Your task to perform on an android device: Open calendar and show me the third week of next month Image 0: 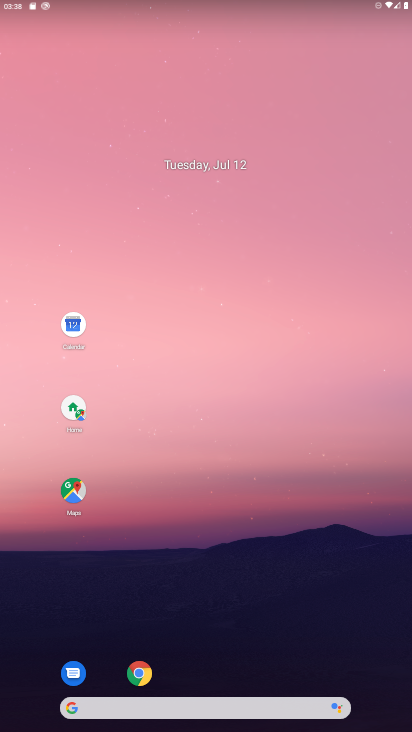
Step 0: drag from (256, 632) to (219, 346)
Your task to perform on an android device: Open calendar and show me the third week of next month Image 1: 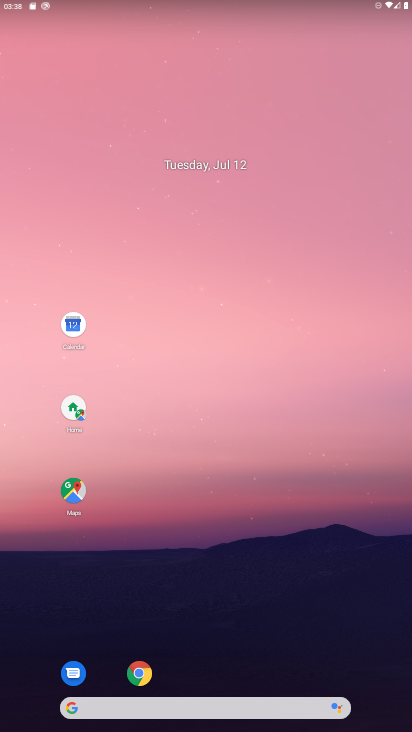
Step 1: drag from (282, 692) to (248, 205)
Your task to perform on an android device: Open calendar and show me the third week of next month Image 2: 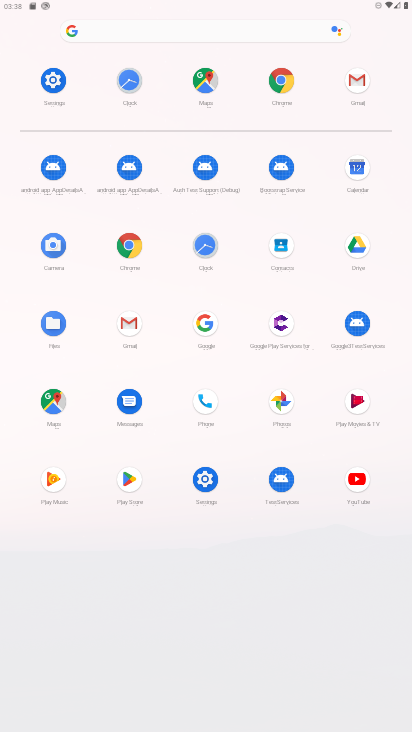
Step 2: click (357, 164)
Your task to perform on an android device: Open calendar and show me the third week of next month Image 3: 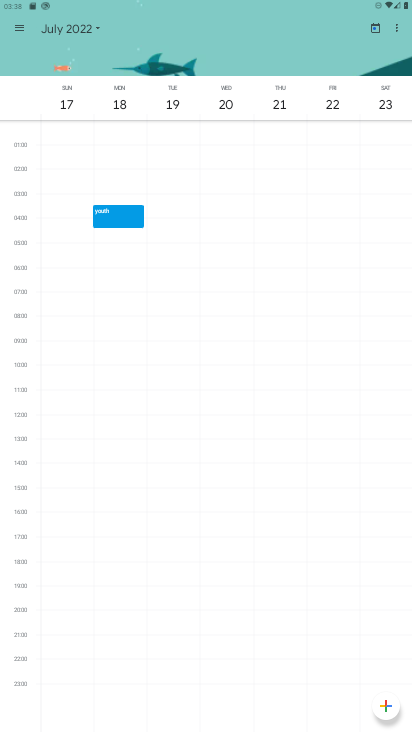
Step 3: drag from (55, 113) to (147, 124)
Your task to perform on an android device: Open calendar and show me the third week of next month Image 4: 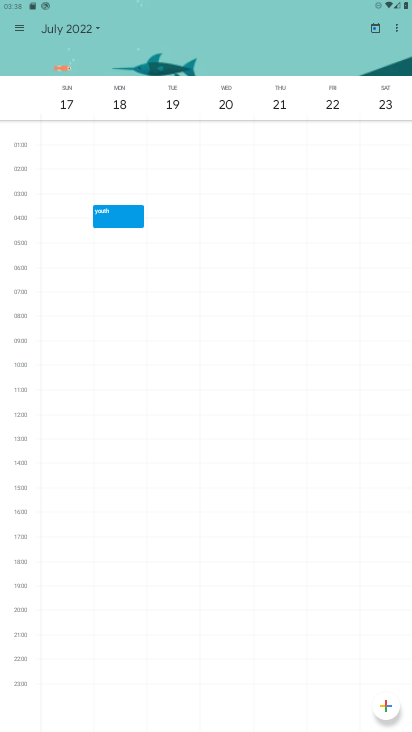
Step 4: click (18, 30)
Your task to perform on an android device: Open calendar and show me the third week of next month Image 5: 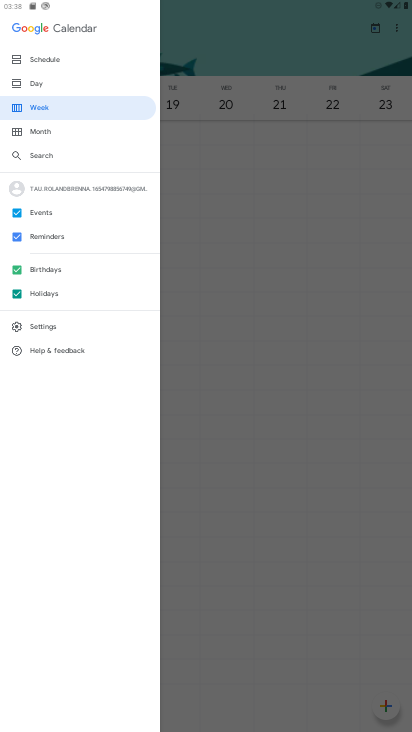
Step 5: click (56, 104)
Your task to perform on an android device: Open calendar and show me the third week of next month Image 6: 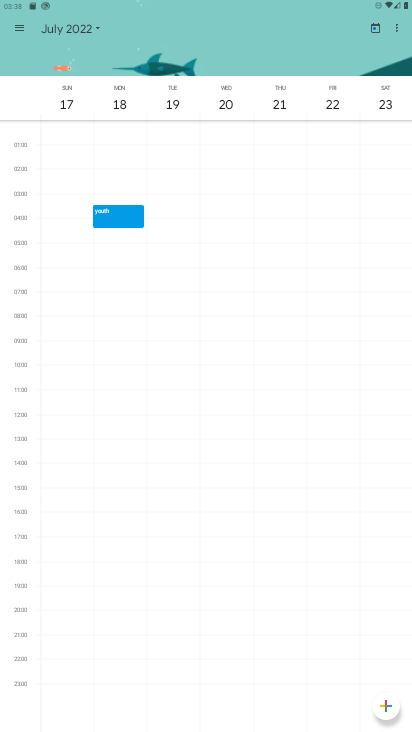
Step 6: click (19, 31)
Your task to perform on an android device: Open calendar and show me the third week of next month Image 7: 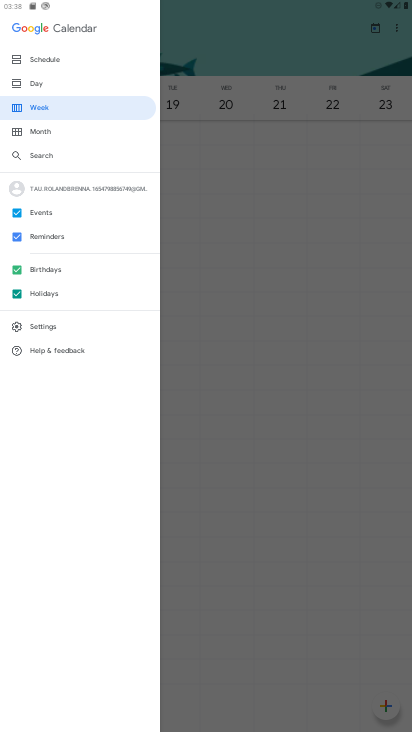
Step 7: click (44, 129)
Your task to perform on an android device: Open calendar and show me the third week of next month Image 8: 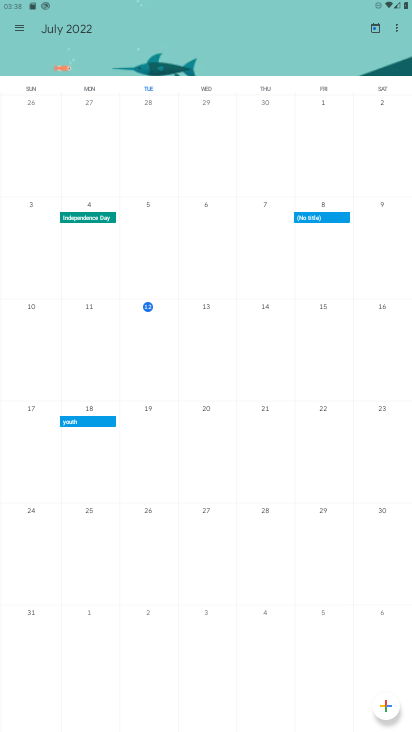
Step 8: task complete